Your task to perform on an android device: create a new album in the google photos Image 0: 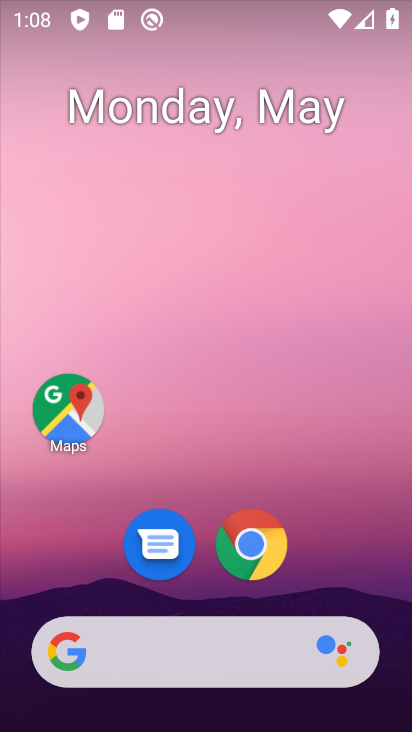
Step 0: drag from (396, 606) to (390, 267)
Your task to perform on an android device: create a new album in the google photos Image 1: 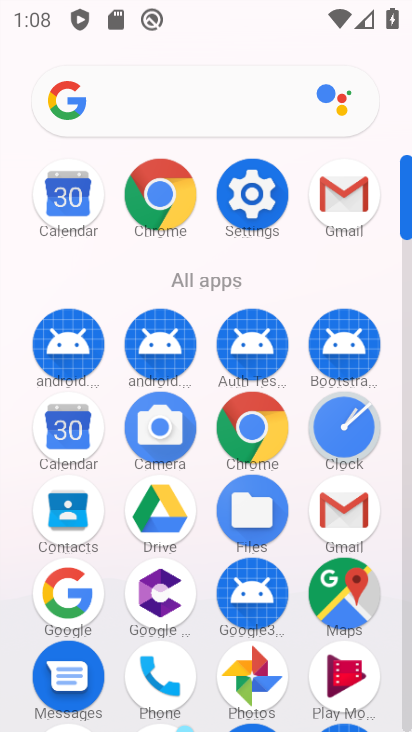
Step 1: drag from (292, 568) to (292, 343)
Your task to perform on an android device: create a new album in the google photos Image 2: 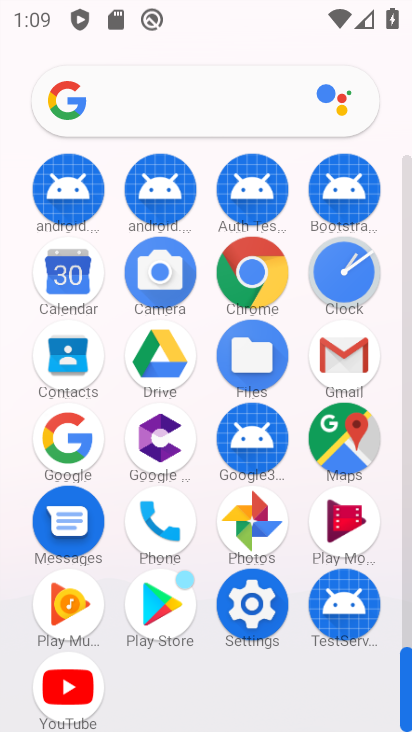
Step 2: click (257, 513)
Your task to perform on an android device: create a new album in the google photos Image 3: 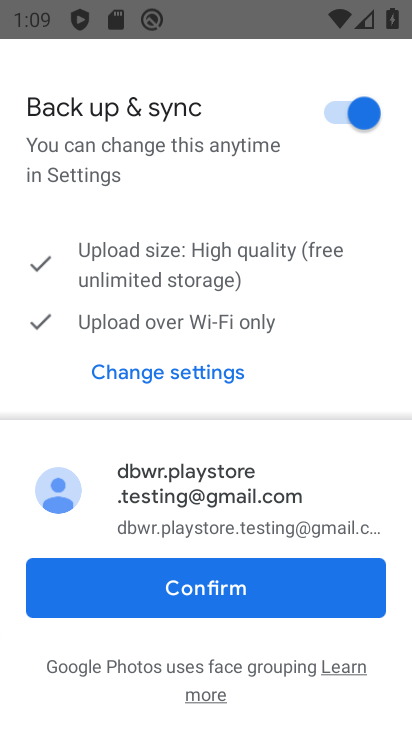
Step 3: click (219, 589)
Your task to perform on an android device: create a new album in the google photos Image 4: 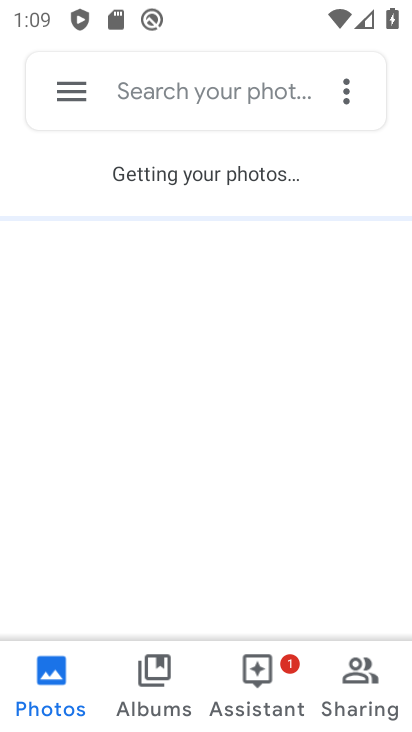
Step 4: click (345, 100)
Your task to perform on an android device: create a new album in the google photos Image 5: 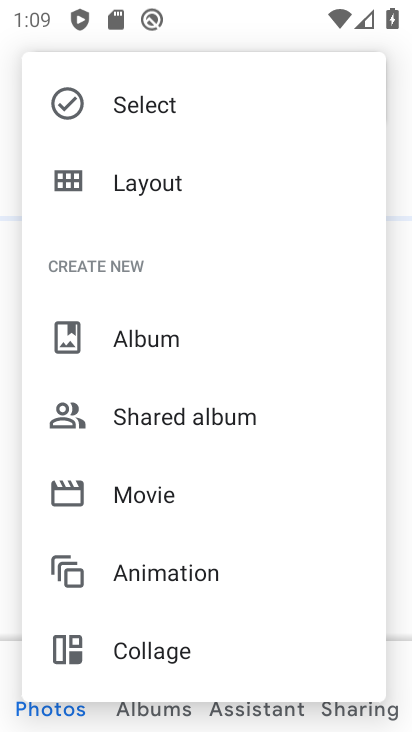
Step 5: click (171, 336)
Your task to perform on an android device: create a new album in the google photos Image 6: 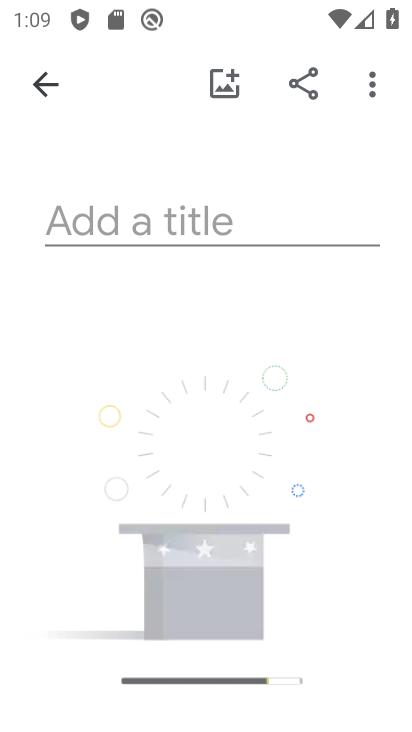
Step 6: click (166, 231)
Your task to perform on an android device: create a new album in the google photos Image 7: 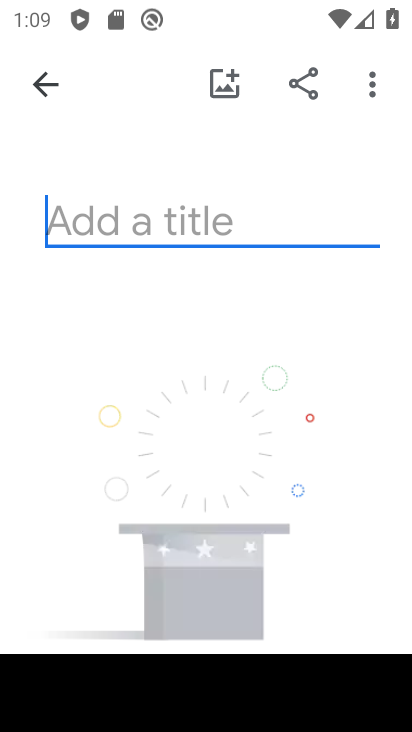
Step 7: type "hav"
Your task to perform on an android device: create a new album in the google photos Image 8: 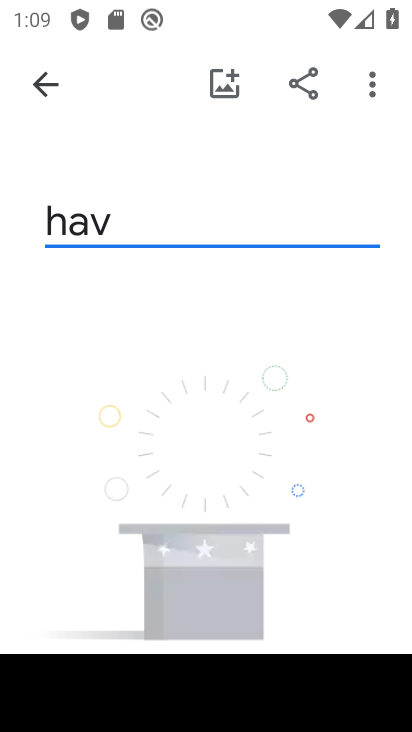
Step 8: drag from (342, 496) to (353, 332)
Your task to perform on an android device: create a new album in the google photos Image 9: 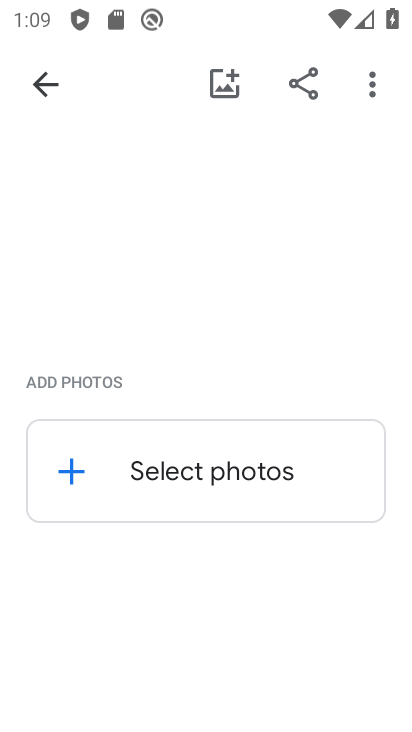
Step 9: click (92, 452)
Your task to perform on an android device: create a new album in the google photos Image 10: 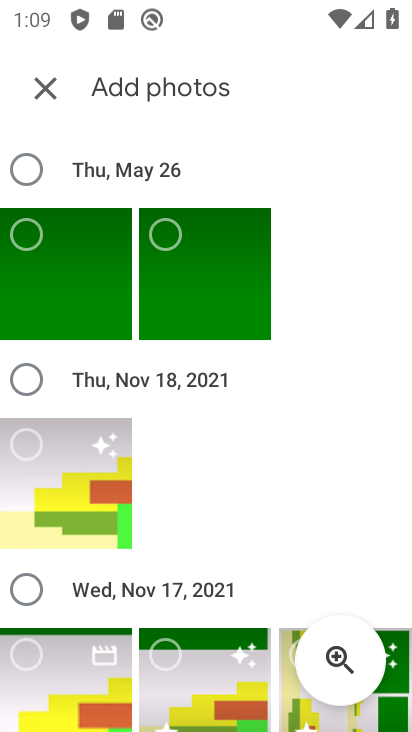
Step 10: click (71, 269)
Your task to perform on an android device: create a new album in the google photos Image 11: 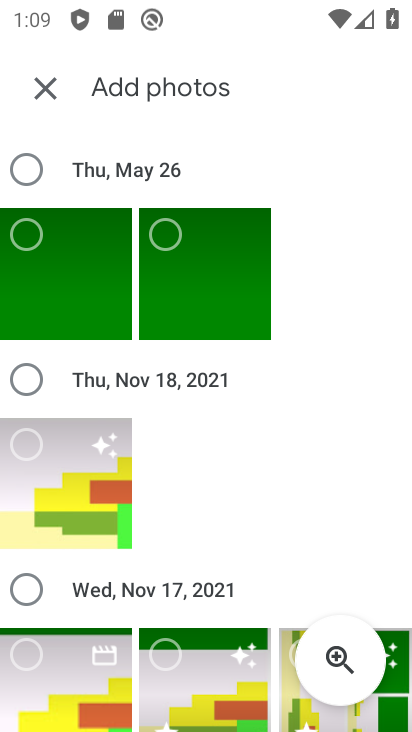
Step 11: click (239, 267)
Your task to perform on an android device: create a new album in the google photos Image 12: 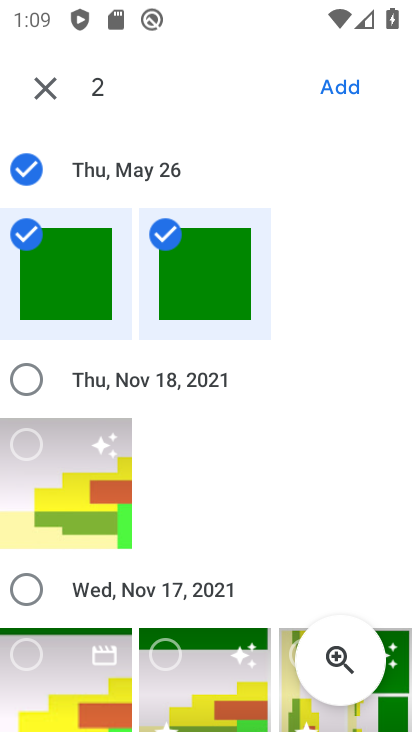
Step 12: click (352, 94)
Your task to perform on an android device: create a new album in the google photos Image 13: 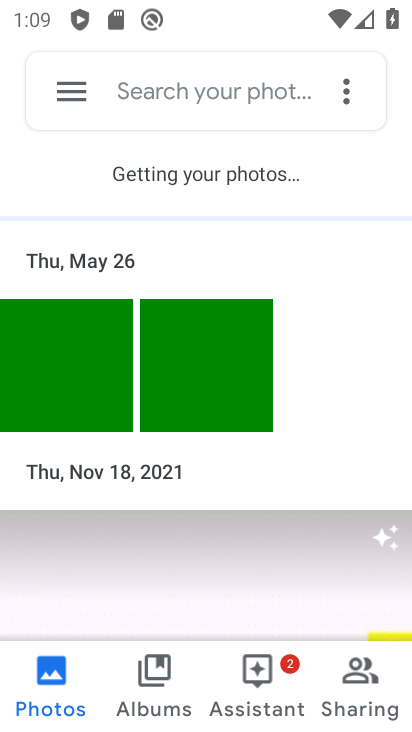
Step 13: task complete